Your task to perform on an android device: turn on bluetooth scan Image 0: 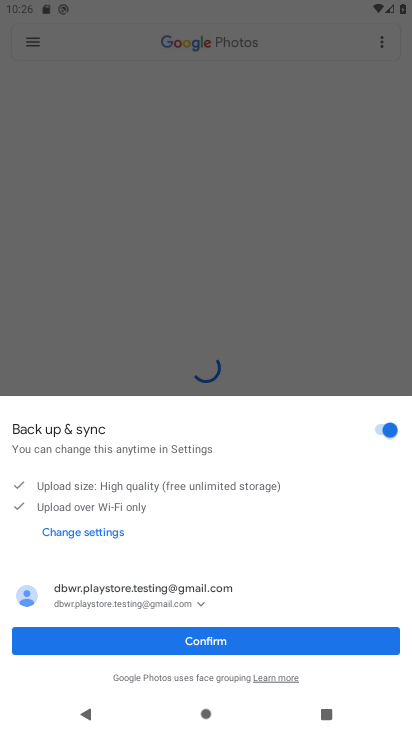
Step 0: press home button
Your task to perform on an android device: turn on bluetooth scan Image 1: 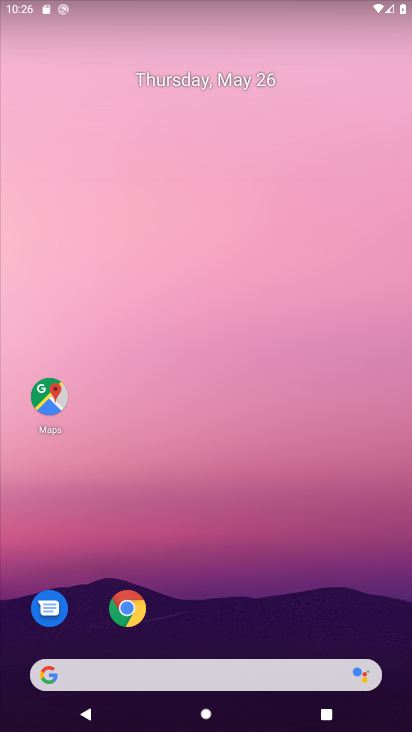
Step 1: drag from (400, 554) to (292, 32)
Your task to perform on an android device: turn on bluetooth scan Image 2: 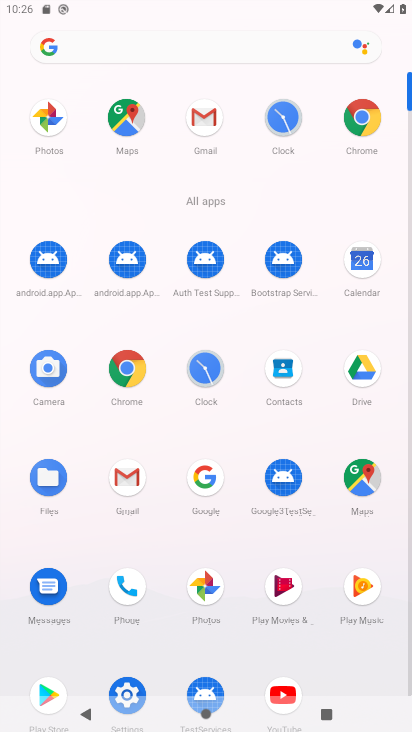
Step 2: click (117, 684)
Your task to perform on an android device: turn on bluetooth scan Image 3: 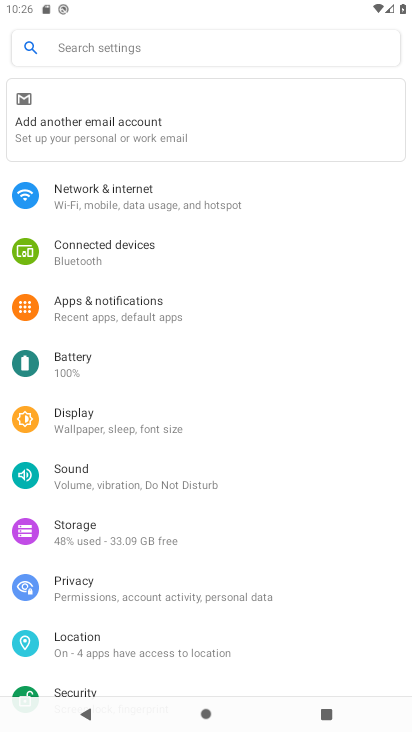
Step 3: click (72, 641)
Your task to perform on an android device: turn on bluetooth scan Image 4: 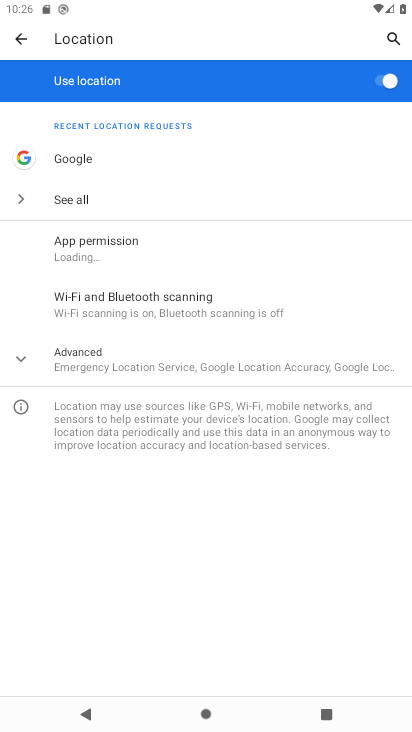
Step 4: click (112, 293)
Your task to perform on an android device: turn on bluetooth scan Image 5: 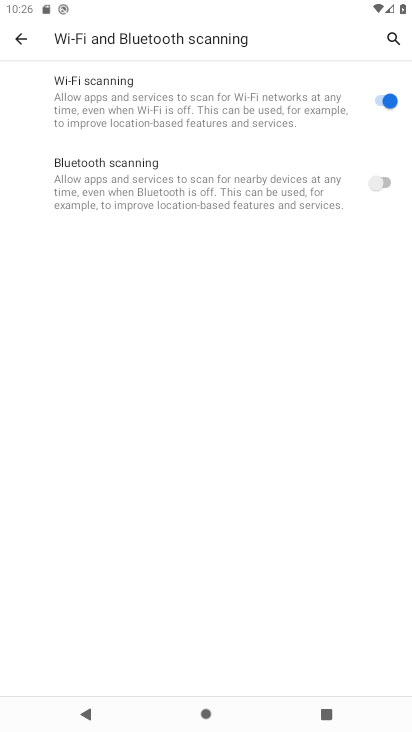
Step 5: click (385, 179)
Your task to perform on an android device: turn on bluetooth scan Image 6: 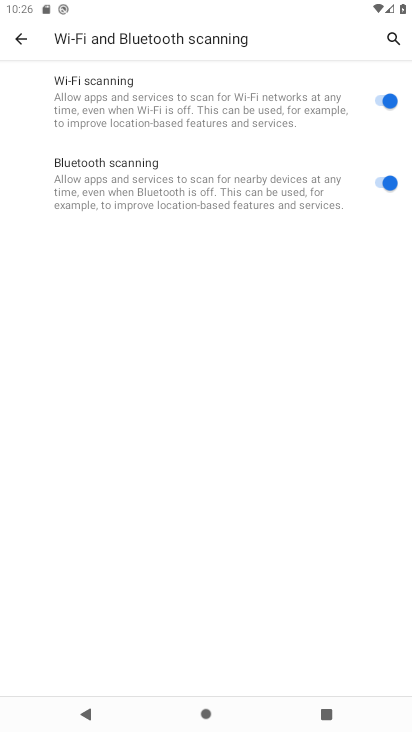
Step 6: task complete